Your task to perform on an android device: open wifi settings Image 0: 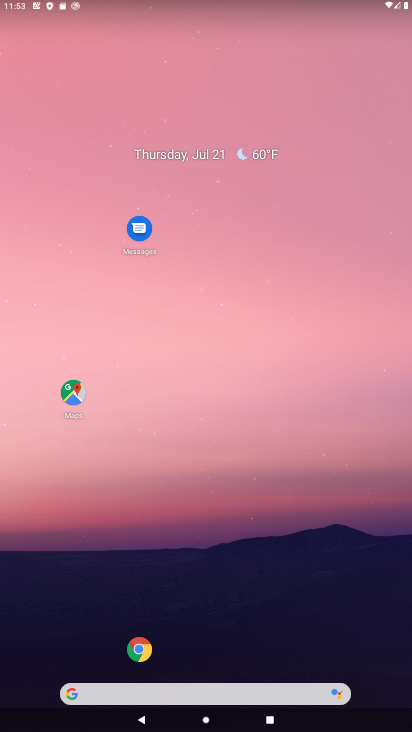
Step 0: task impossible